Your task to perform on an android device: check android version Image 0: 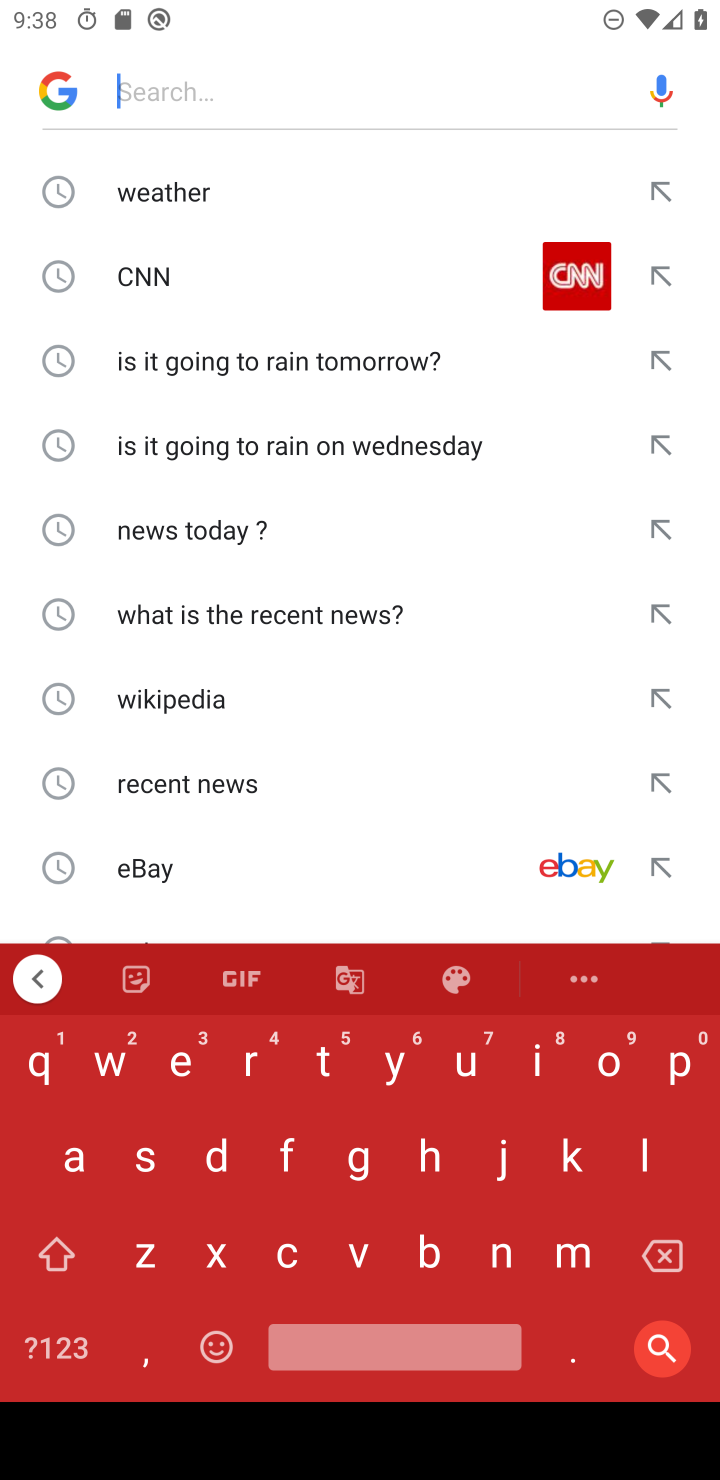
Step 0: press home button
Your task to perform on an android device: check android version Image 1: 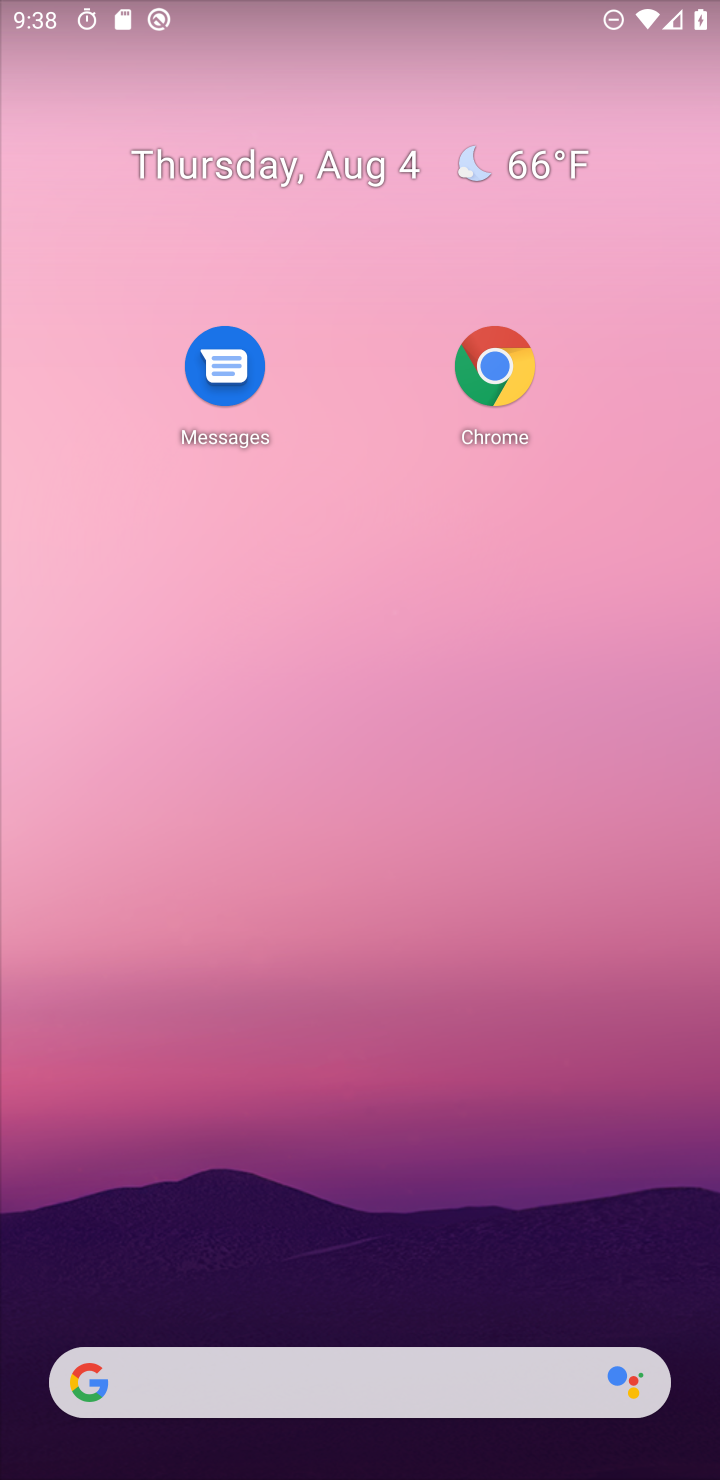
Step 1: drag from (429, 849) to (429, 237)
Your task to perform on an android device: check android version Image 2: 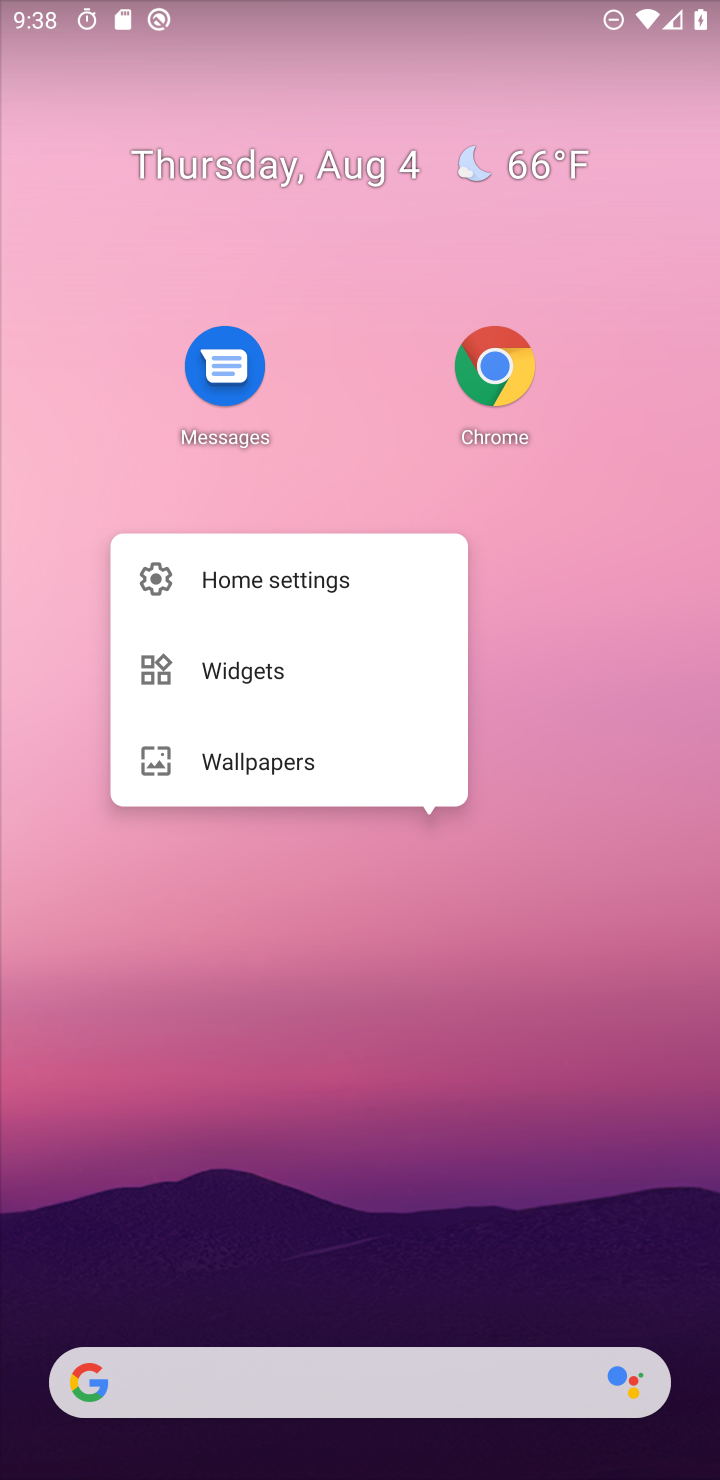
Step 2: click (560, 740)
Your task to perform on an android device: check android version Image 3: 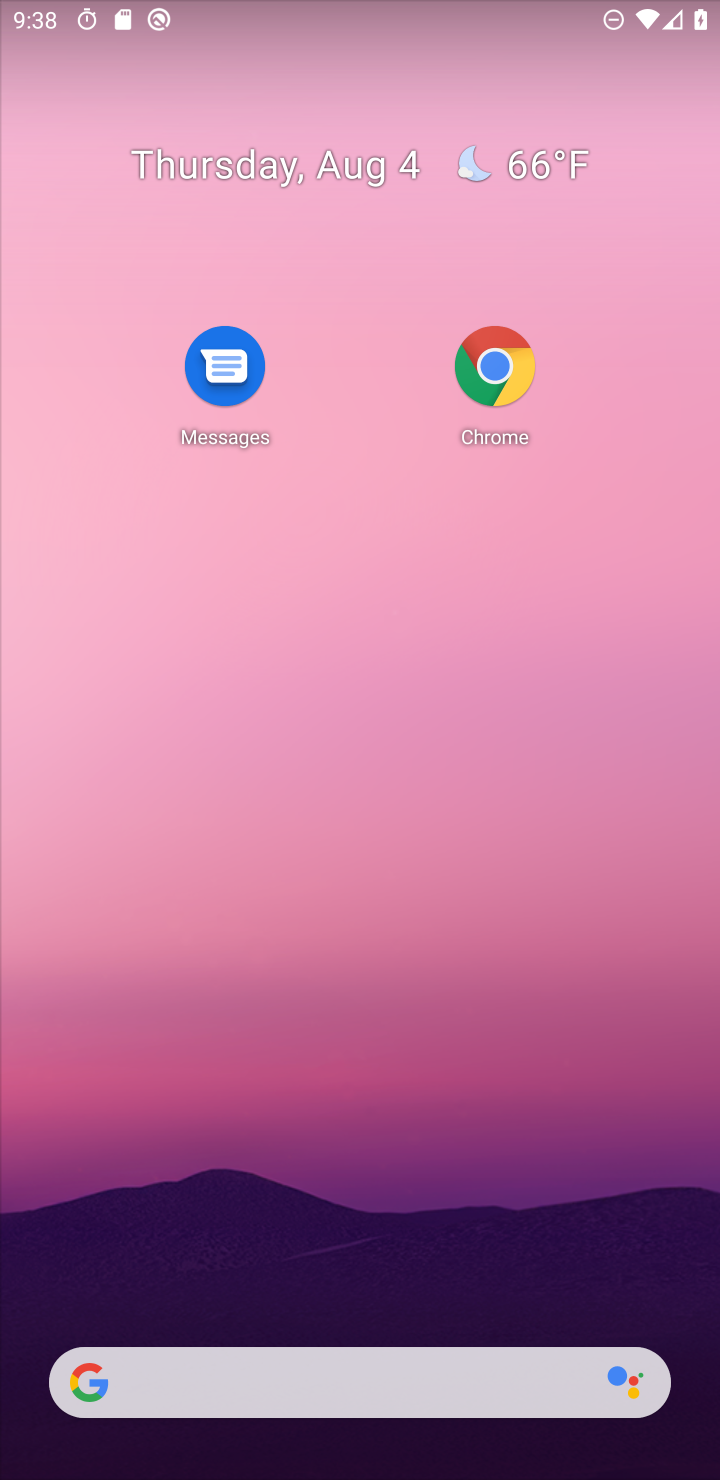
Step 3: press home button
Your task to perform on an android device: check android version Image 4: 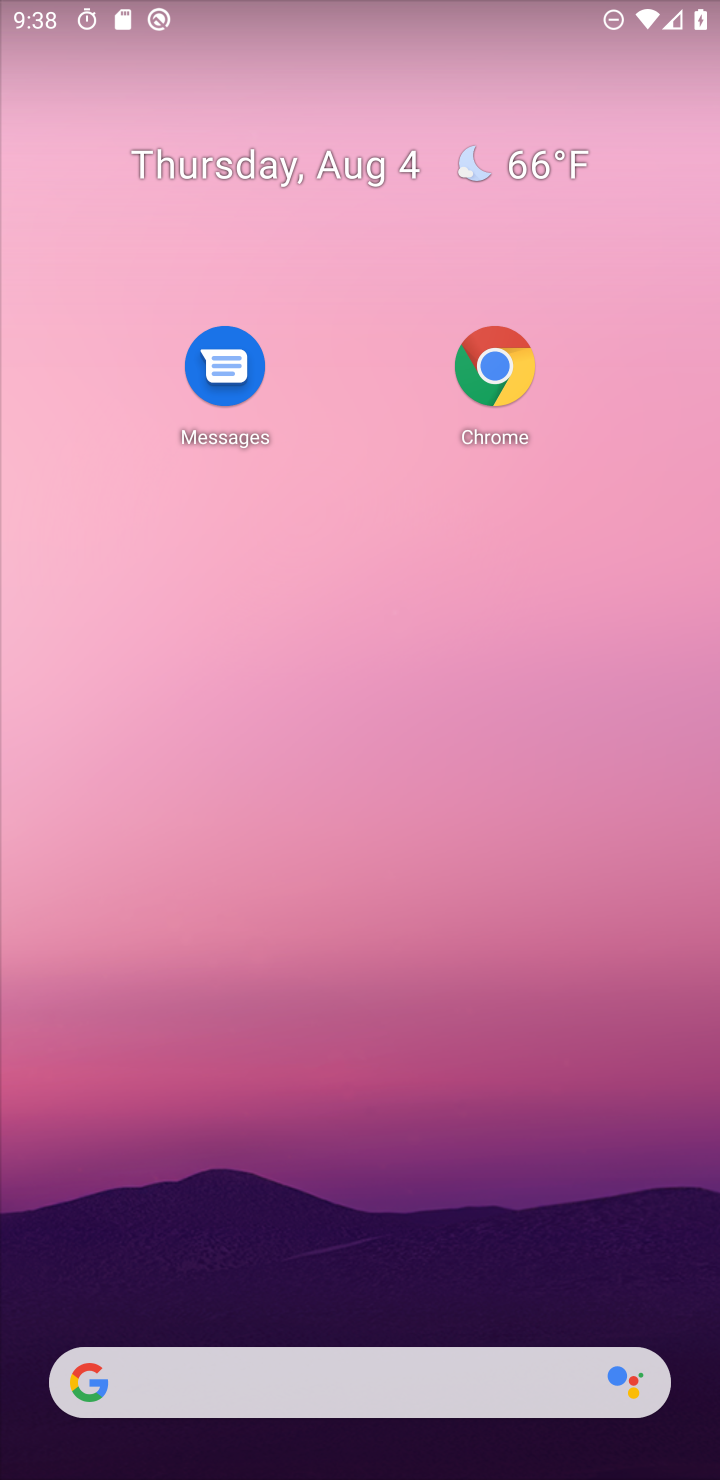
Step 4: drag from (464, 1113) to (408, 191)
Your task to perform on an android device: check android version Image 5: 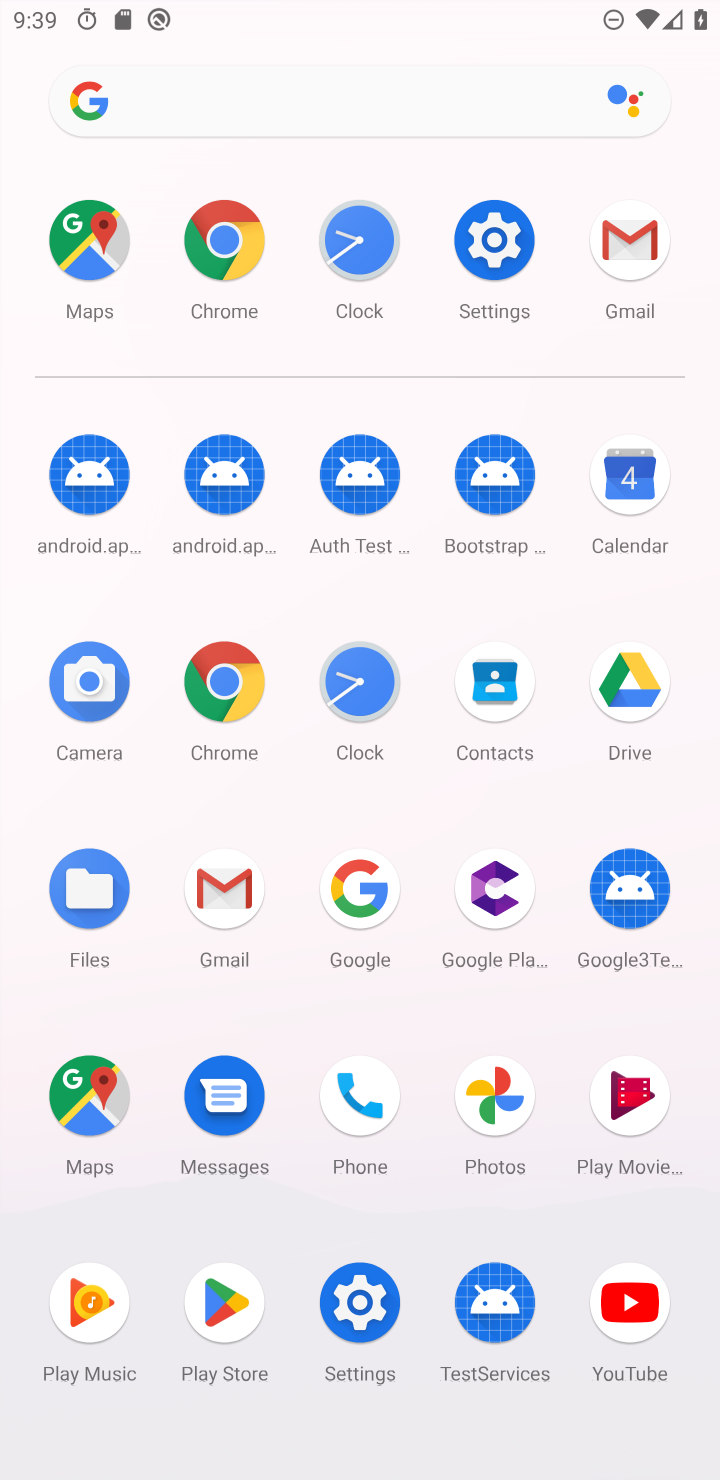
Step 5: click (491, 230)
Your task to perform on an android device: check android version Image 6: 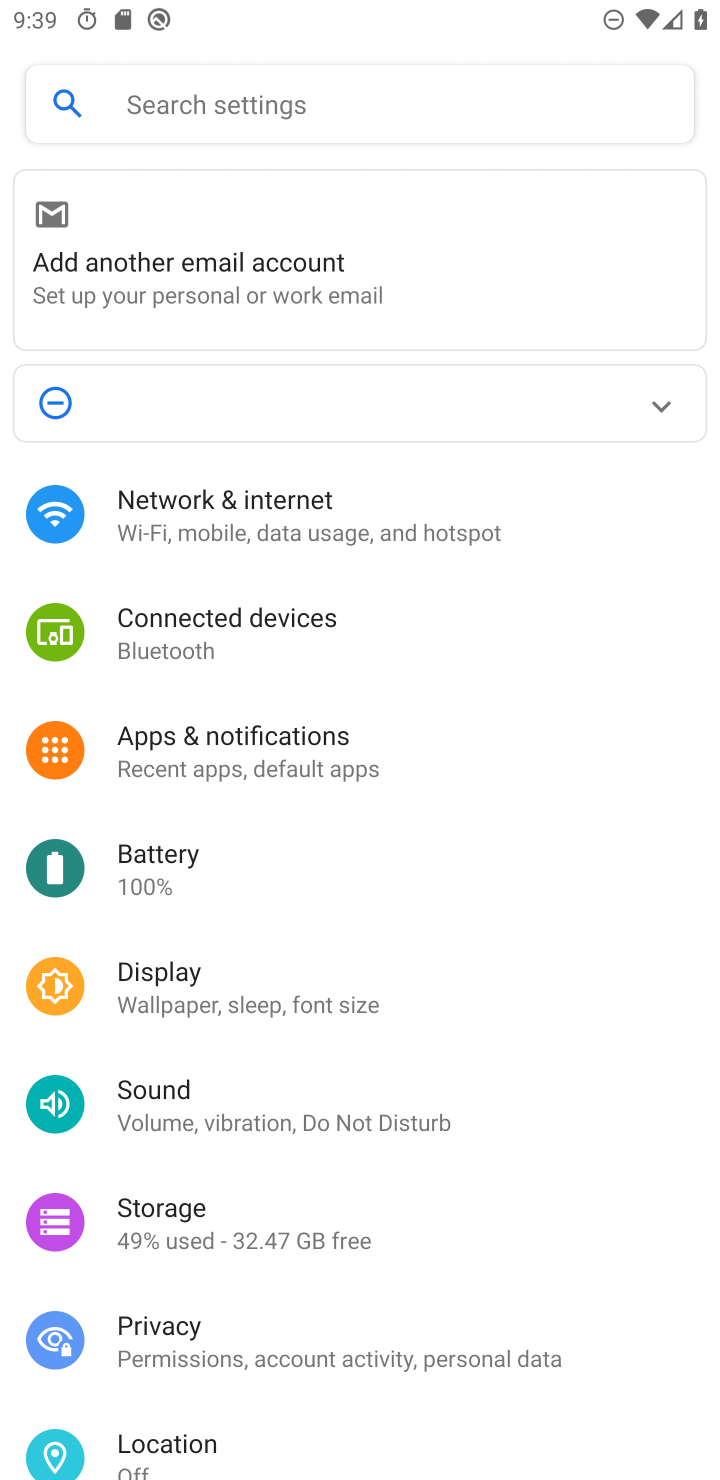
Step 6: click (192, 107)
Your task to perform on an android device: check android version Image 7: 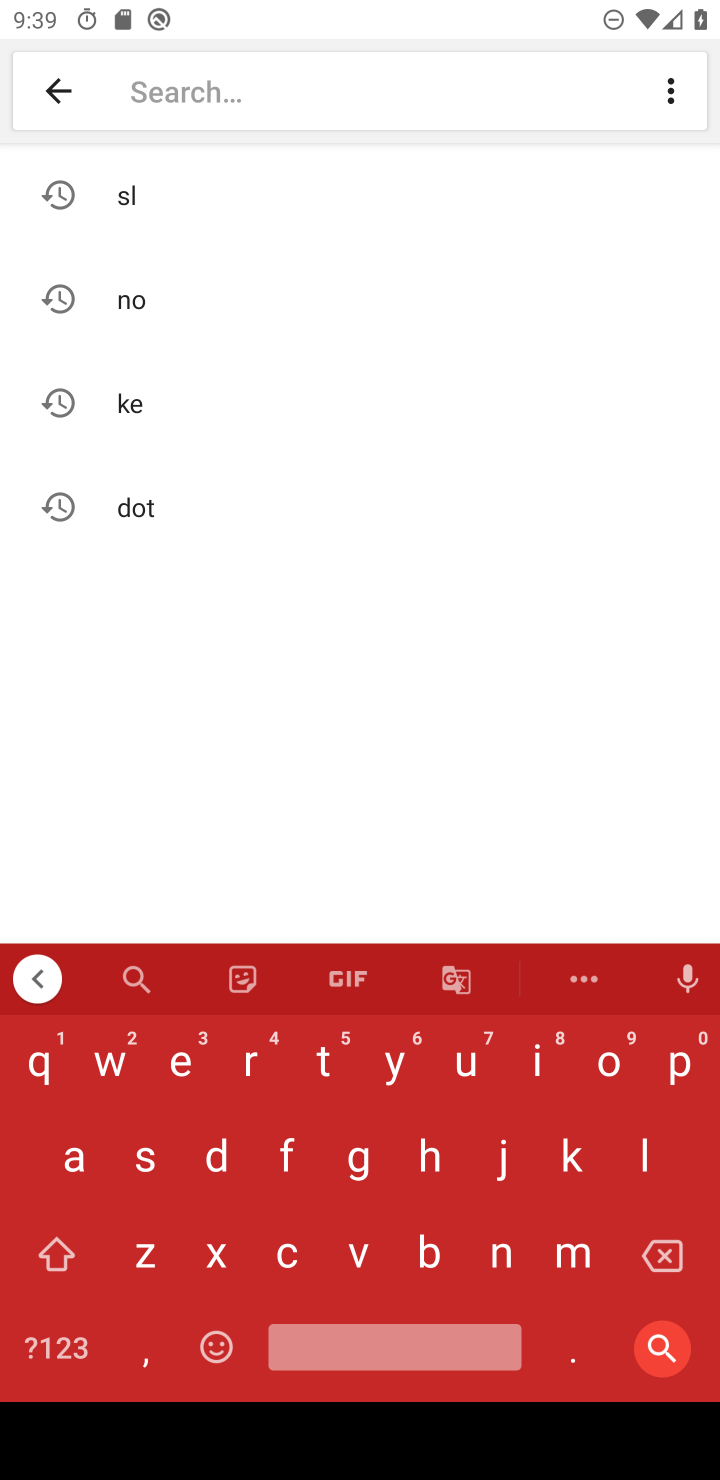
Step 7: click (55, 1168)
Your task to perform on an android device: check android version Image 8: 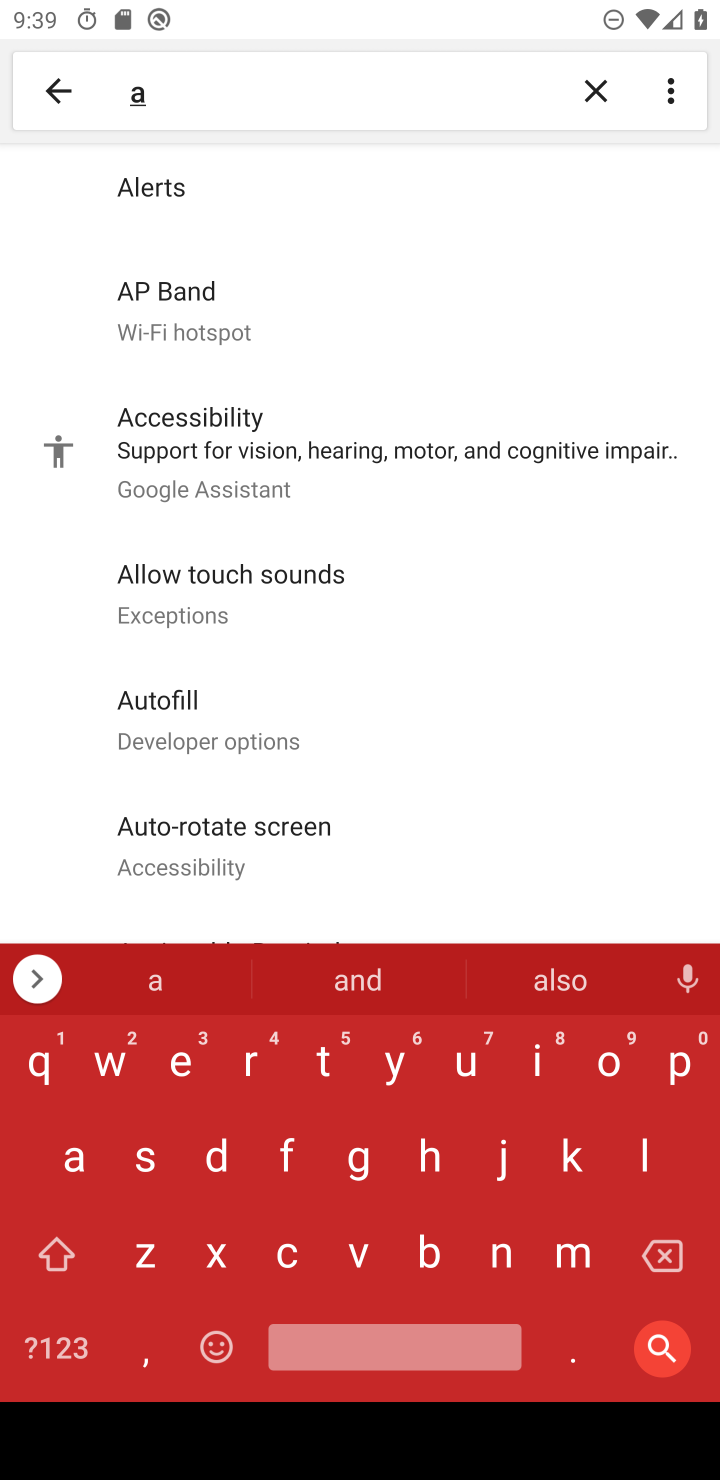
Step 8: click (494, 1229)
Your task to perform on an android device: check android version Image 9: 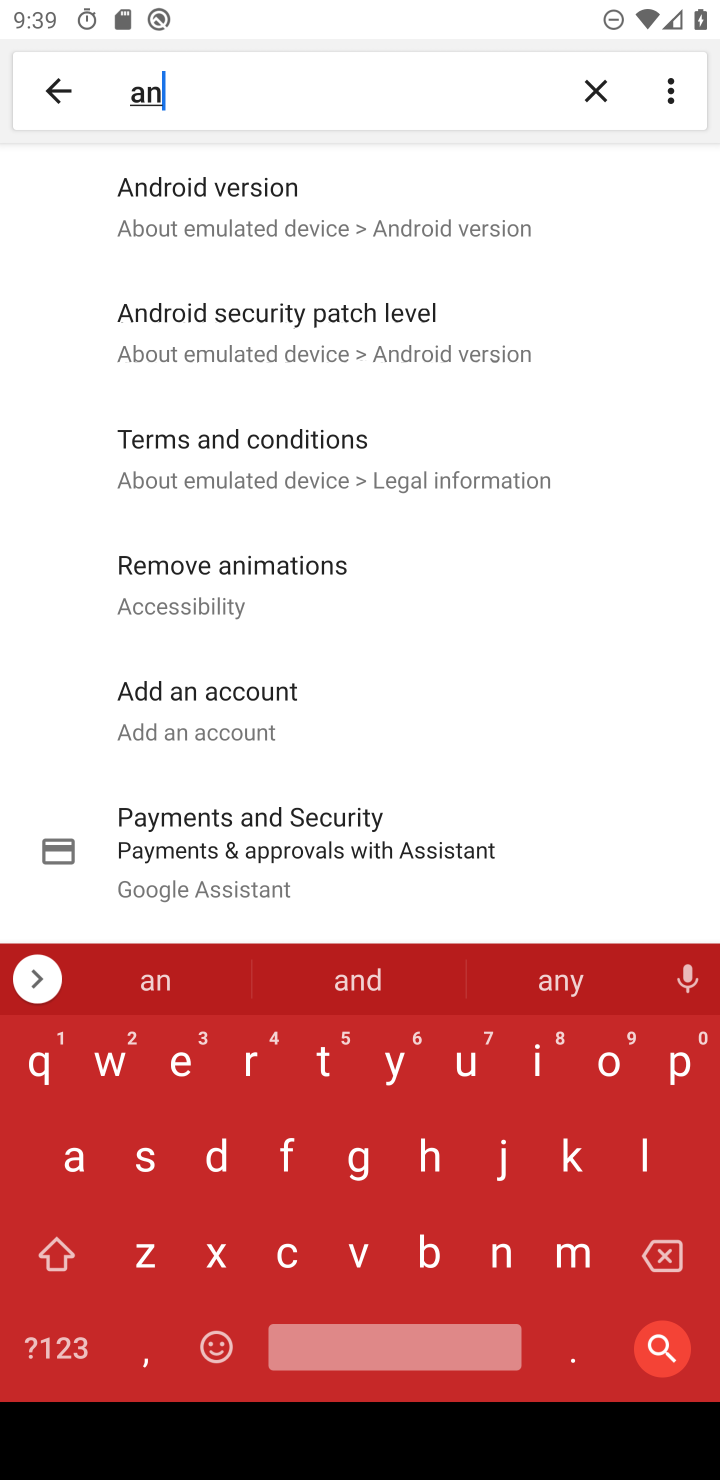
Step 9: click (209, 224)
Your task to perform on an android device: check android version Image 10: 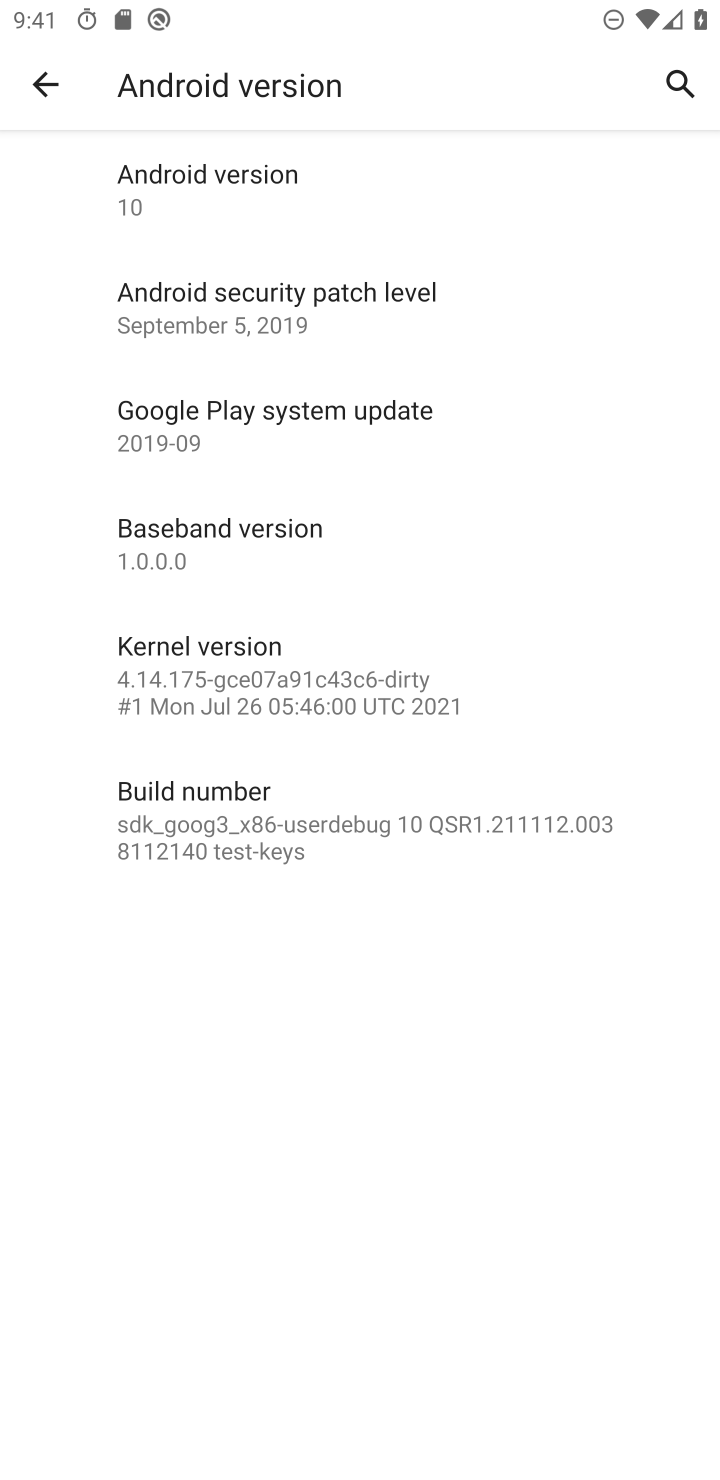
Step 10: task complete